Your task to perform on an android device: open app "Duolingo: language lessons" (install if not already installed) Image 0: 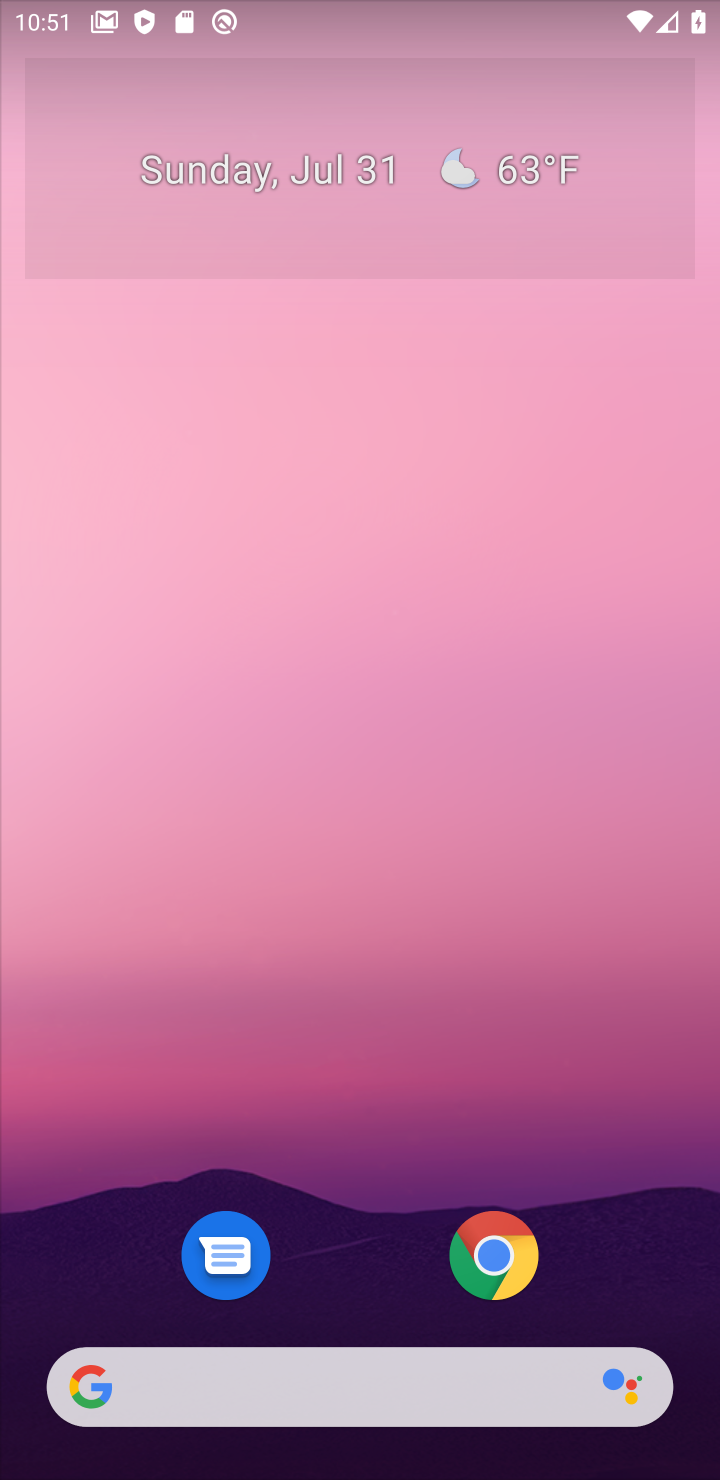
Step 0: drag from (291, 843) to (558, 4)
Your task to perform on an android device: open app "Duolingo: language lessons" (install if not already installed) Image 1: 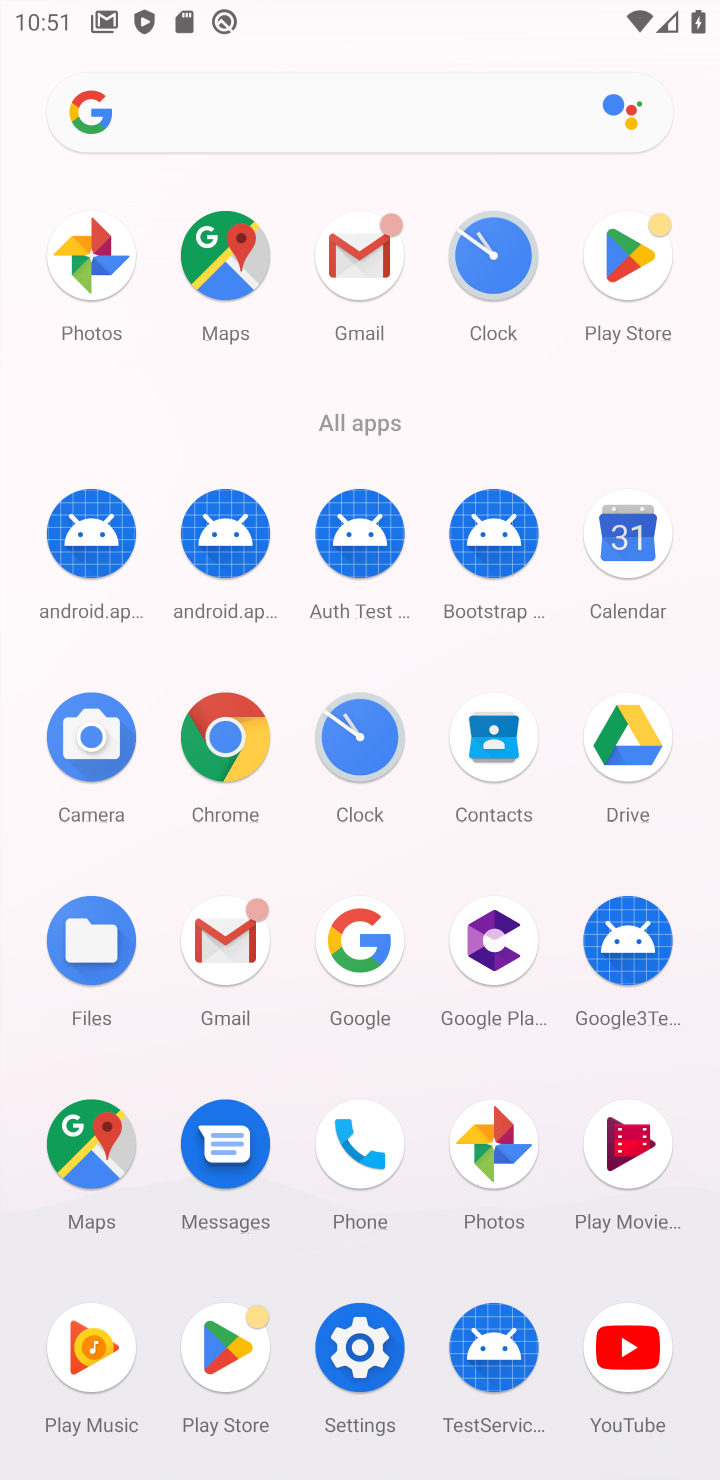
Step 1: click (233, 1337)
Your task to perform on an android device: open app "Duolingo: language lessons" (install if not already installed) Image 2: 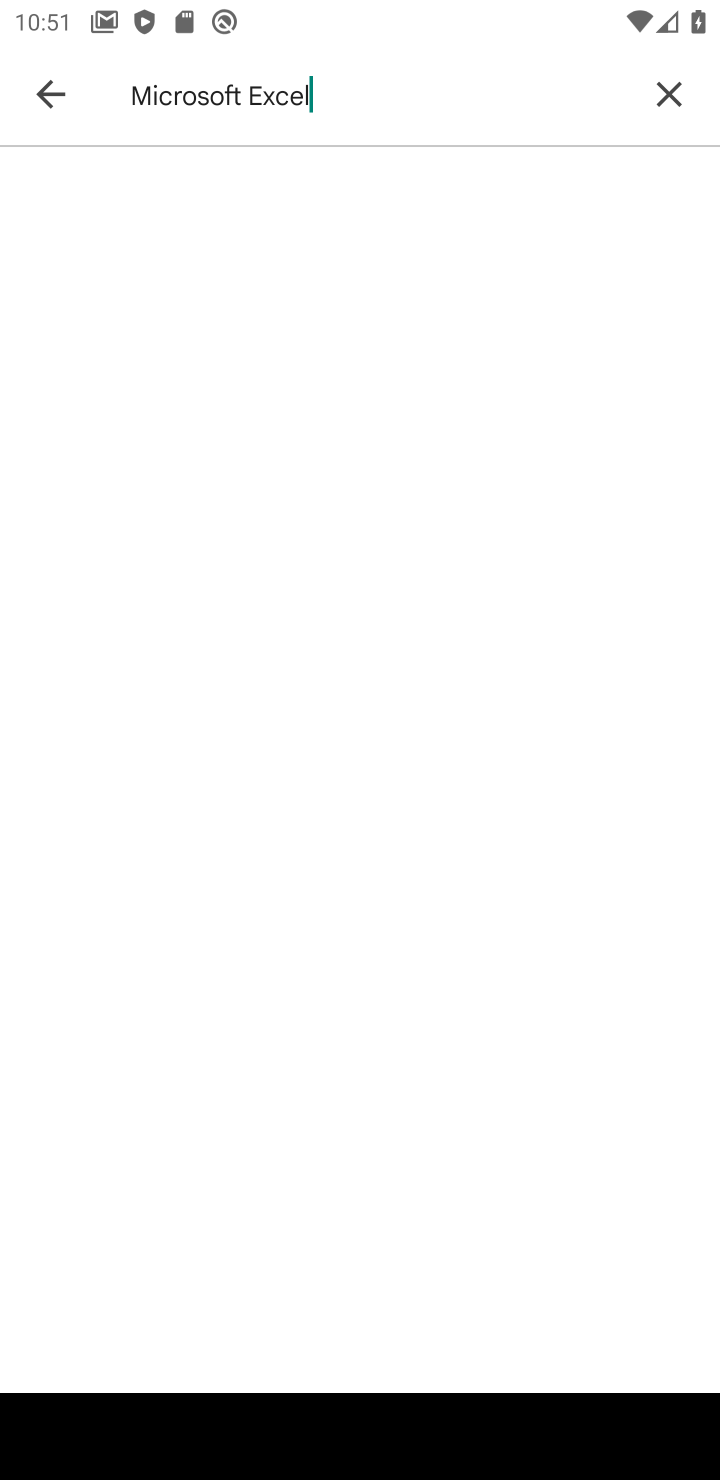
Step 2: click (88, 105)
Your task to perform on an android device: open app "Duolingo: language lessons" (install if not already installed) Image 3: 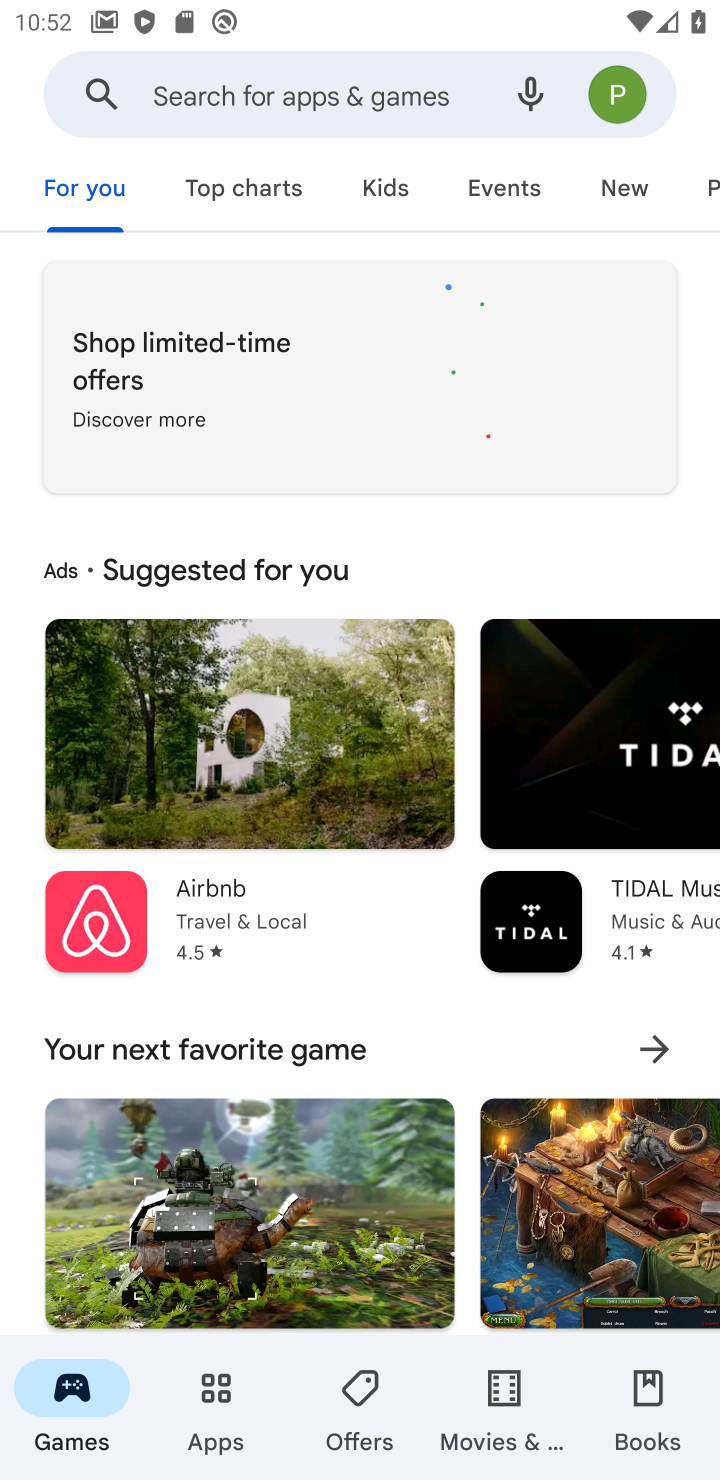
Step 3: click (208, 88)
Your task to perform on an android device: open app "Duolingo: language lessons" (install if not already installed) Image 4: 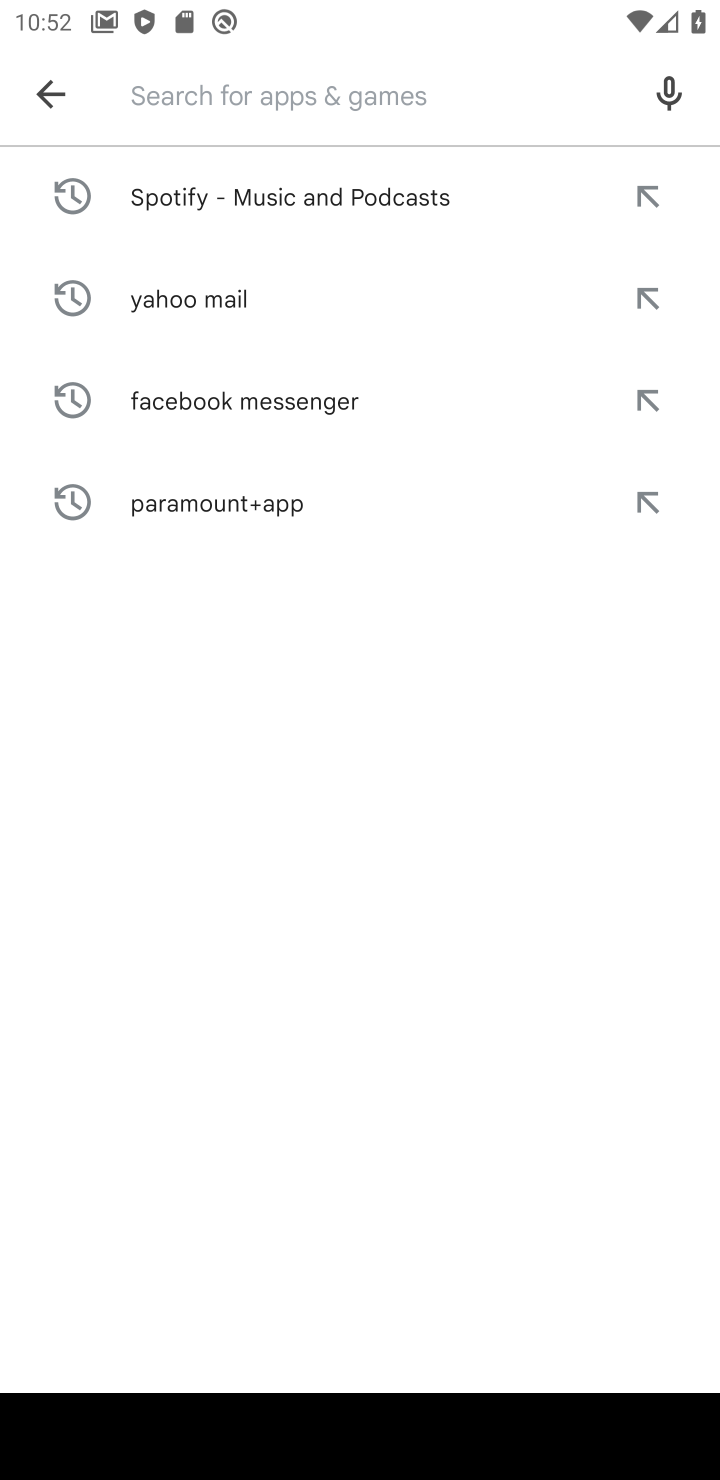
Step 4: type "Duolingo: language lessons"
Your task to perform on an android device: open app "Duolingo: language lessons" (install if not already installed) Image 5: 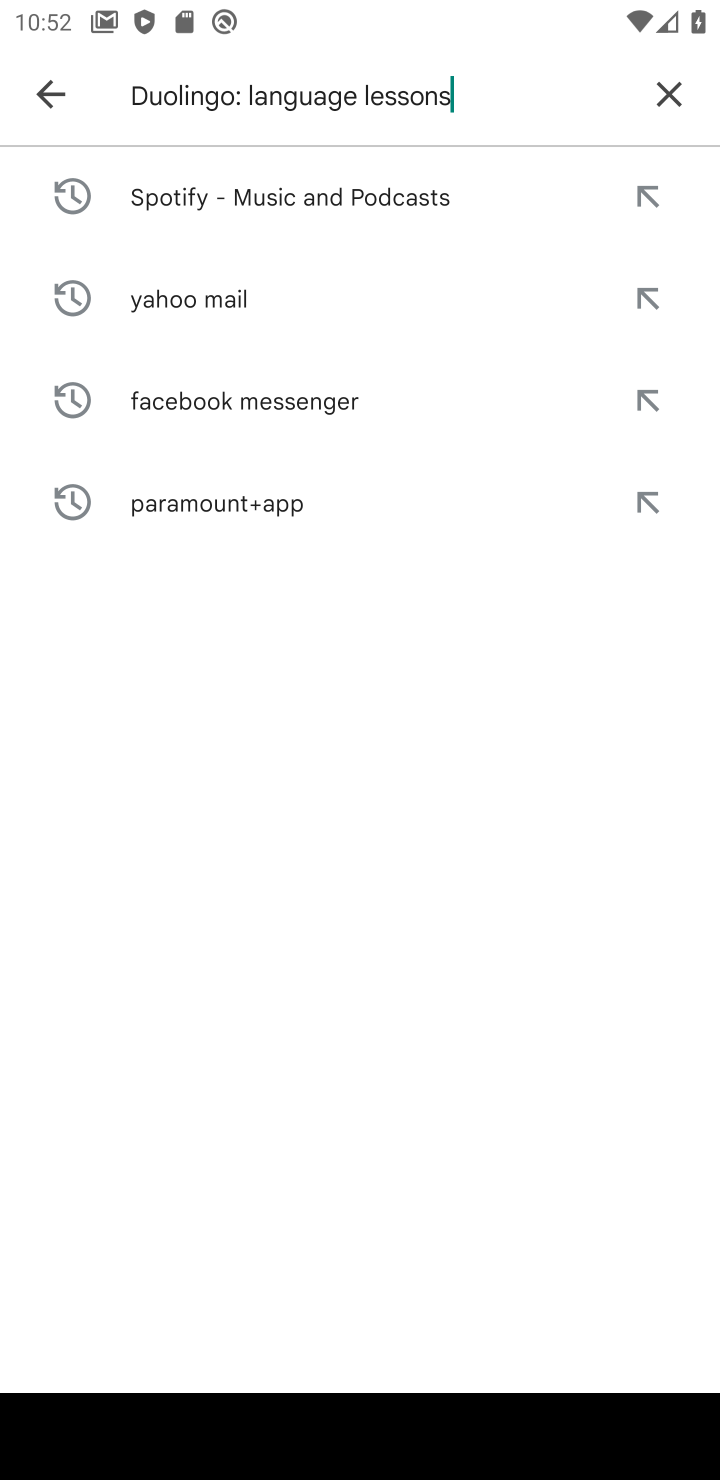
Step 5: type ""
Your task to perform on an android device: open app "Duolingo: language lessons" (install if not already installed) Image 6: 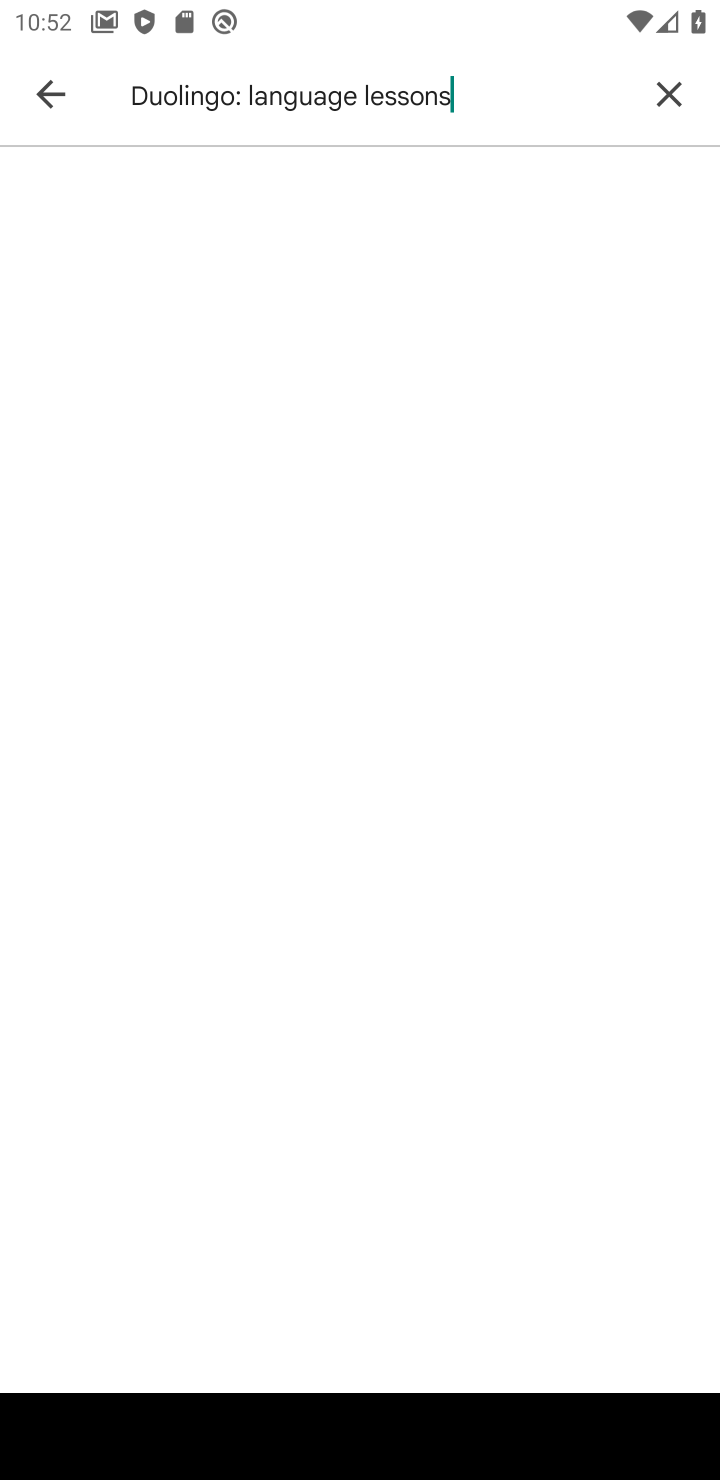
Step 6: task complete